Your task to perform on an android device: open device folders in google photos Image 0: 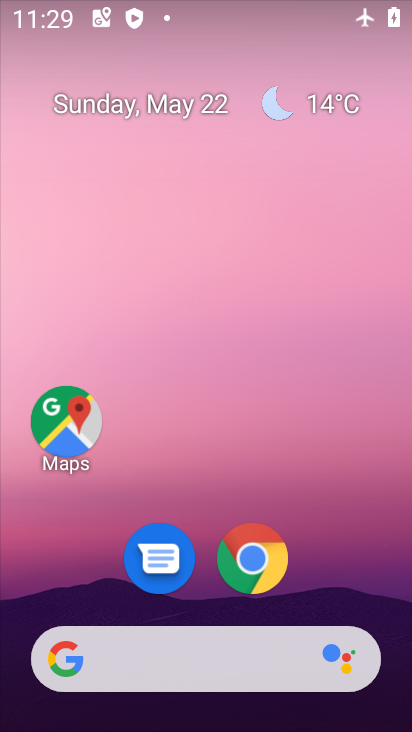
Step 0: drag from (351, 612) to (365, 43)
Your task to perform on an android device: open device folders in google photos Image 1: 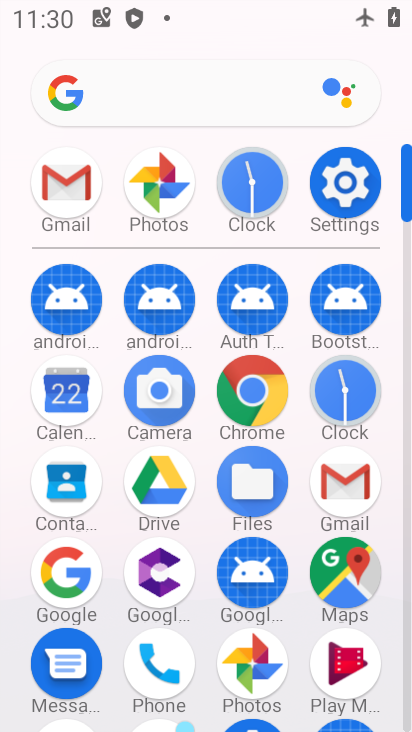
Step 1: click (162, 175)
Your task to perform on an android device: open device folders in google photos Image 2: 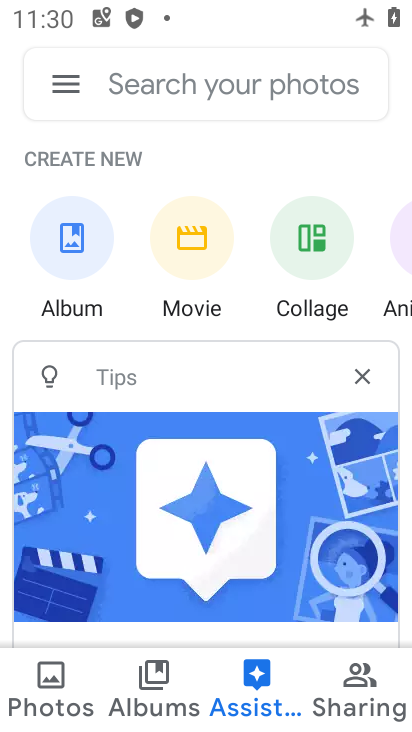
Step 2: click (63, 89)
Your task to perform on an android device: open device folders in google photos Image 3: 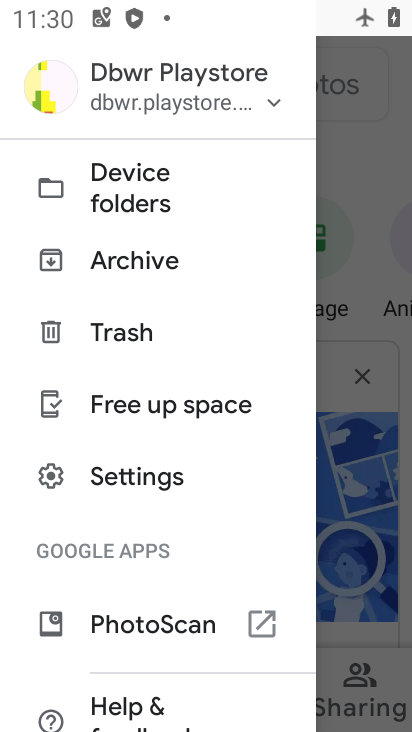
Step 3: click (90, 190)
Your task to perform on an android device: open device folders in google photos Image 4: 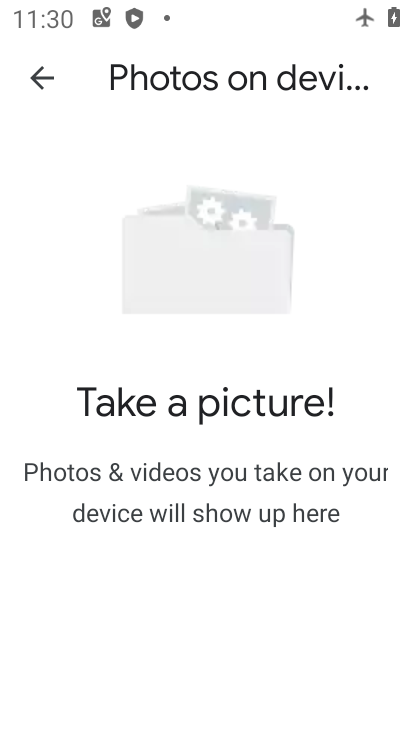
Step 4: task complete